Your task to perform on an android device: turn notification dots off Image 0: 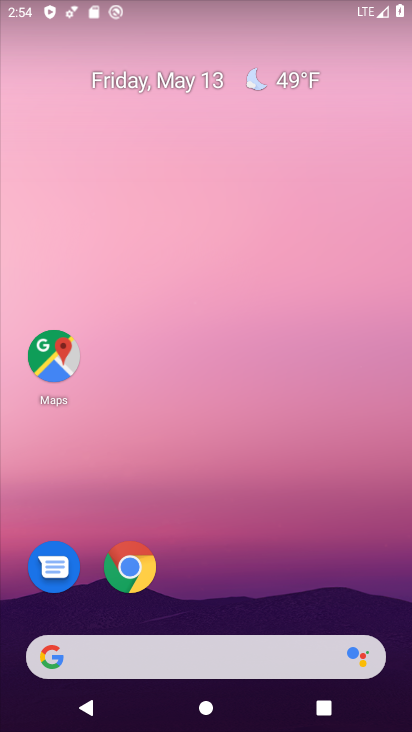
Step 0: drag from (200, 636) to (184, 77)
Your task to perform on an android device: turn notification dots off Image 1: 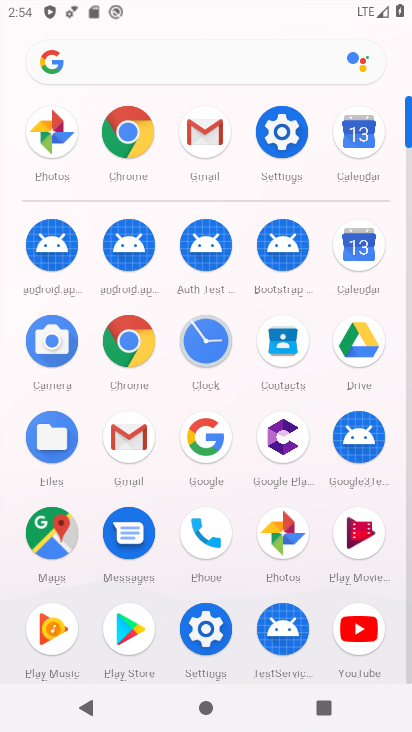
Step 1: click (210, 608)
Your task to perform on an android device: turn notification dots off Image 2: 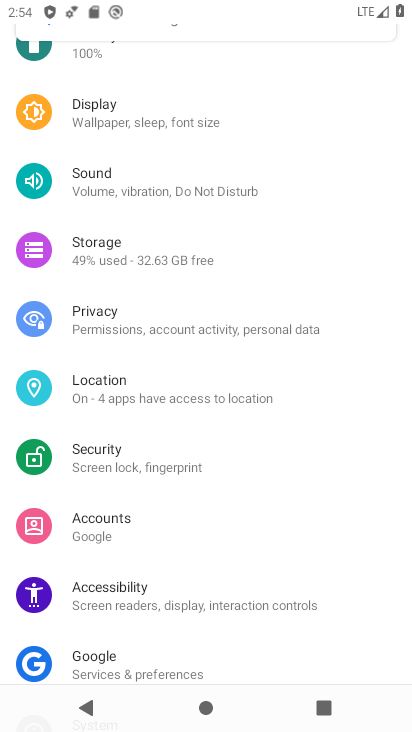
Step 2: drag from (132, 143) to (137, 529)
Your task to perform on an android device: turn notification dots off Image 3: 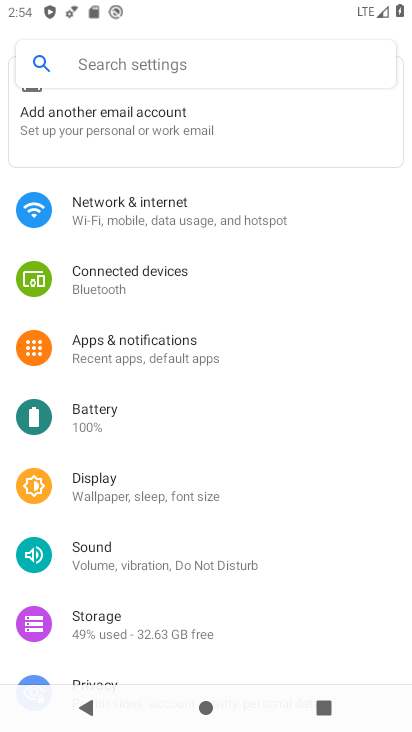
Step 3: click (187, 348)
Your task to perform on an android device: turn notification dots off Image 4: 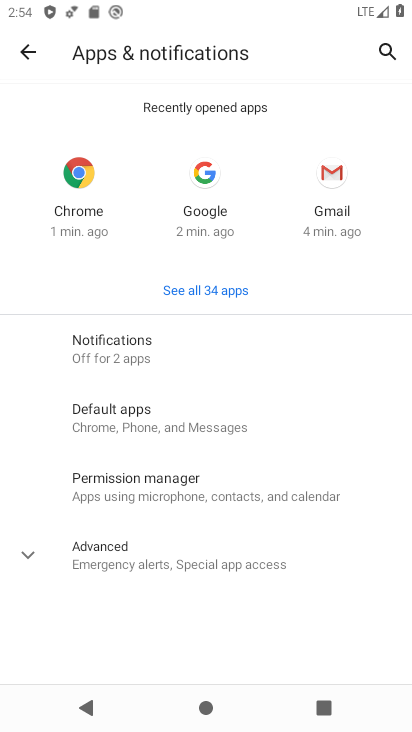
Step 4: click (143, 351)
Your task to perform on an android device: turn notification dots off Image 5: 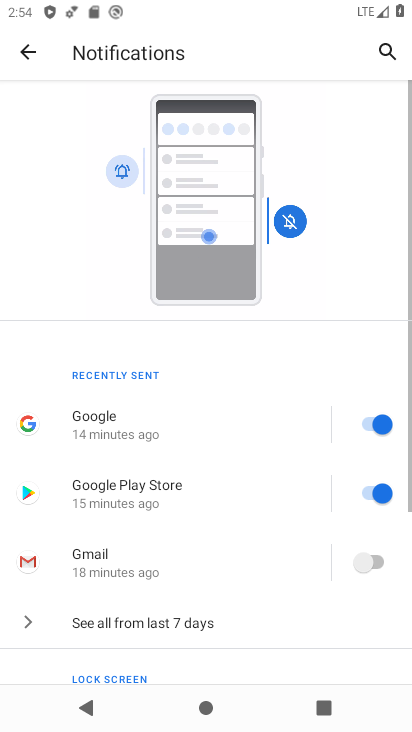
Step 5: drag from (237, 580) to (165, 171)
Your task to perform on an android device: turn notification dots off Image 6: 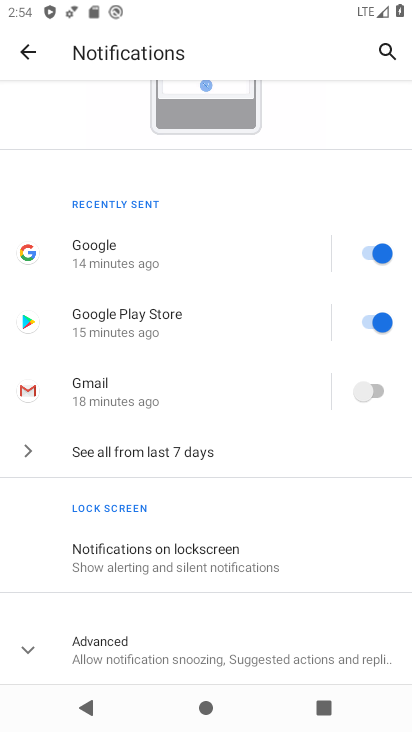
Step 6: click (198, 637)
Your task to perform on an android device: turn notification dots off Image 7: 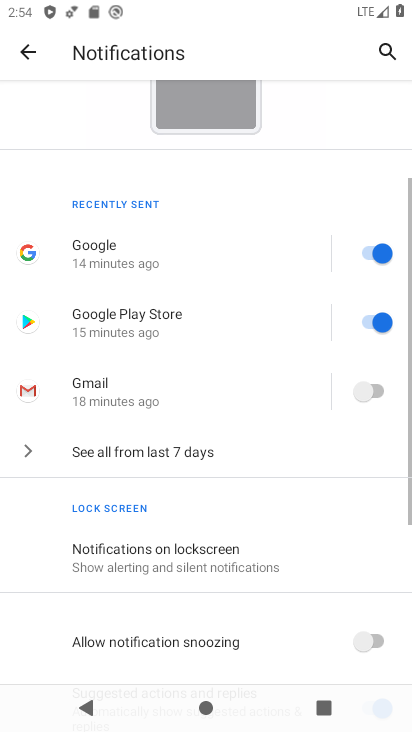
Step 7: task complete